Your task to perform on an android device: open device folders in google photos Image 0: 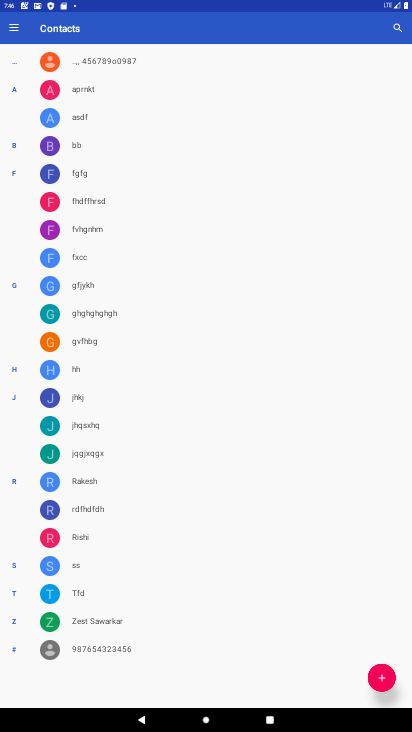
Step 0: press home button
Your task to perform on an android device: open device folders in google photos Image 1: 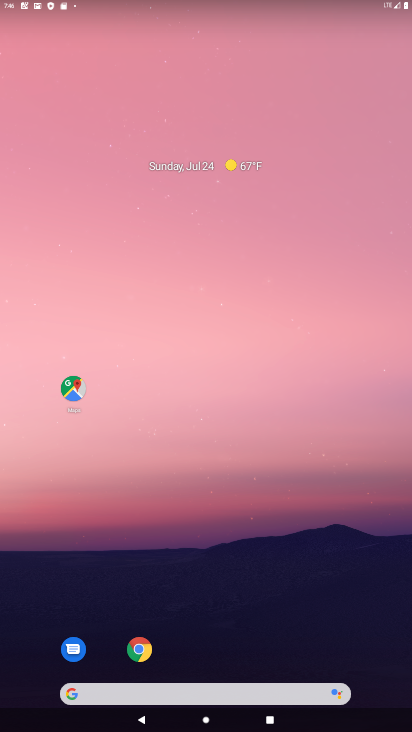
Step 1: drag from (231, 633) to (131, 166)
Your task to perform on an android device: open device folders in google photos Image 2: 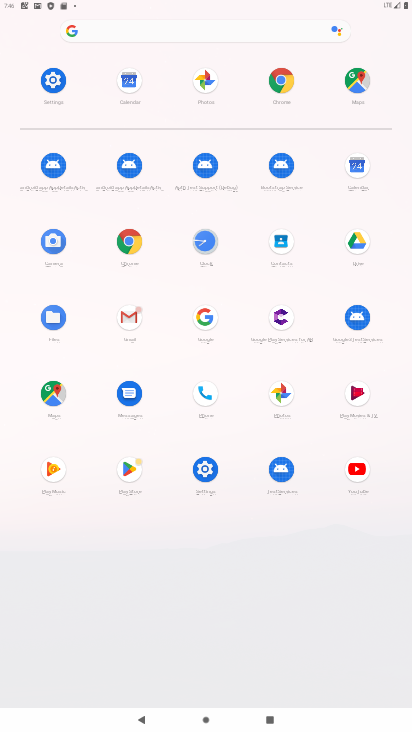
Step 2: click (282, 370)
Your task to perform on an android device: open device folders in google photos Image 3: 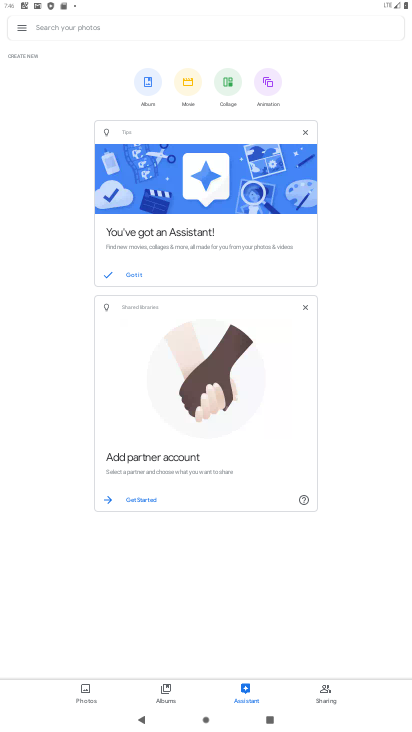
Step 3: click (22, 32)
Your task to perform on an android device: open device folders in google photos Image 4: 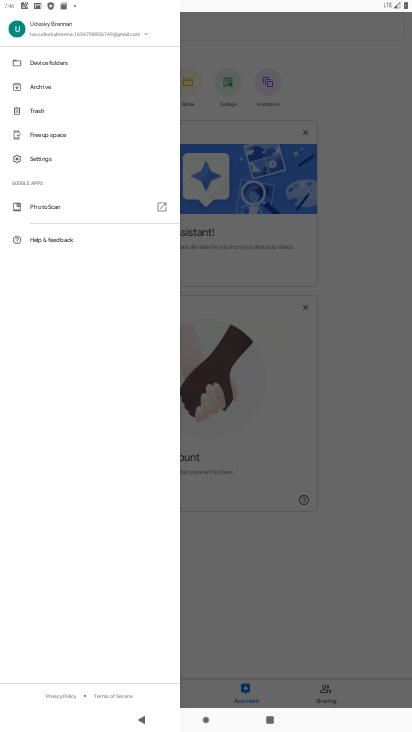
Step 4: click (49, 61)
Your task to perform on an android device: open device folders in google photos Image 5: 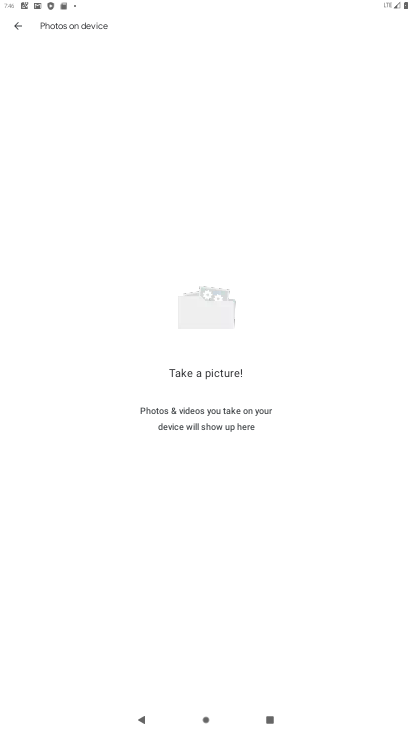
Step 5: task complete